Your task to perform on an android device: Go to display settings Image 0: 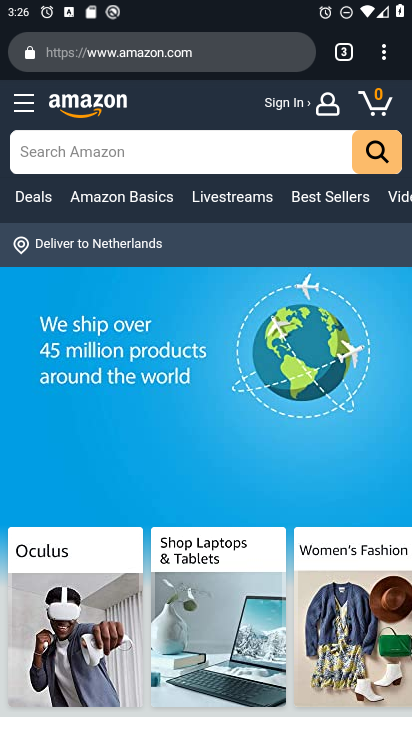
Step 0: press home button
Your task to perform on an android device: Go to display settings Image 1: 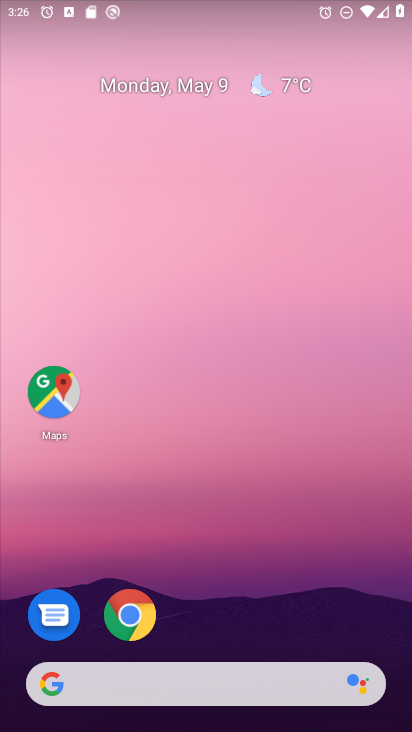
Step 1: drag from (372, 640) to (302, 60)
Your task to perform on an android device: Go to display settings Image 2: 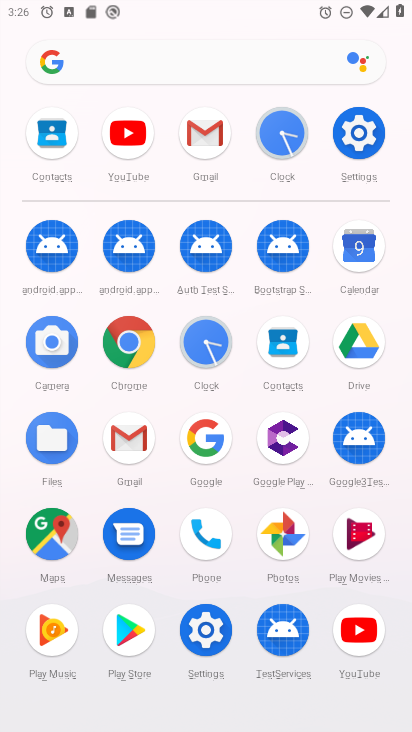
Step 2: click (205, 632)
Your task to perform on an android device: Go to display settings Image 3: 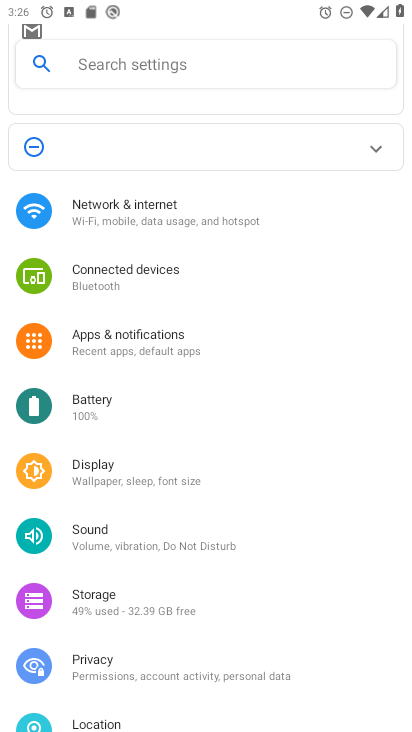
Step 3: click (95, 477)
Your task to perform on an android device: Go to display settings Image 4: 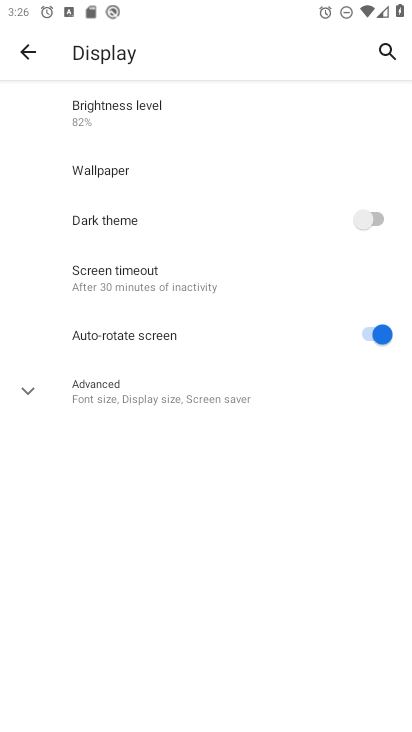
Step 4: click (29, 390)
Your task to perform on an android device: Go to display settings Image 5: 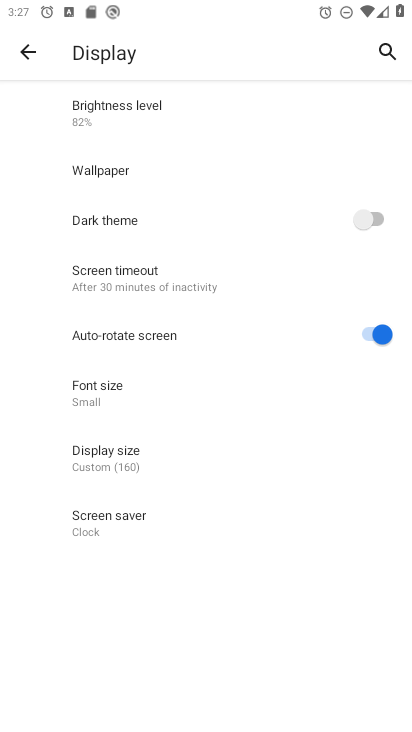
Step 5: task complete